Your task to perform on an android device: change the clock style Image 0: 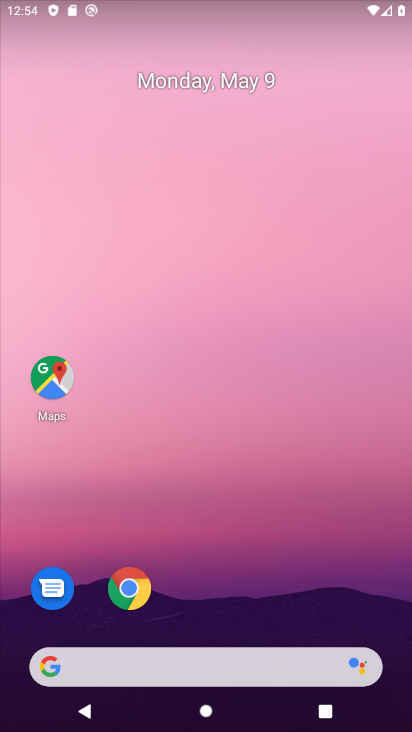
Step 0: drag from (197, 249) to (193, 161)
Your task to perform on an android device: change the clock style Image 1: 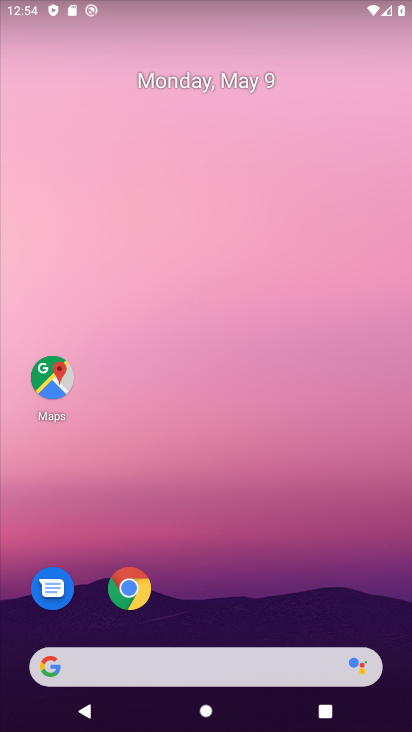
Step 1: drag from (212, 567) to (251, 56)
Your task to perform on an android device: change the clock style Image 2: 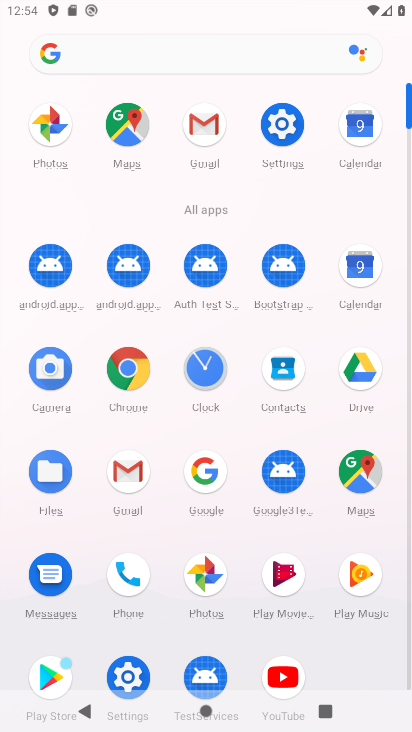
Step 2: click (201, 380)
Your task to perform on an android device: change the clock style Image 3: 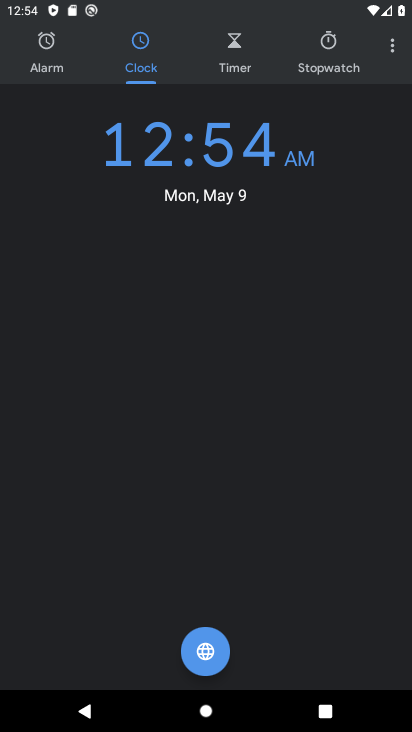
Step 3: click (394, 44)
Your task to perform on an android device: change the clock style Image 4: 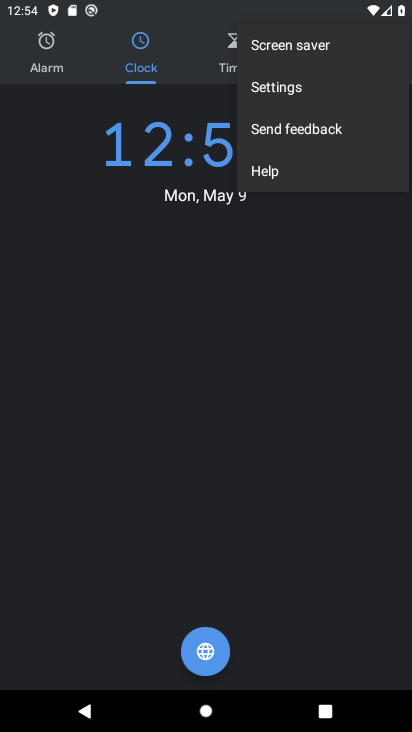
Step 4: click (275, 96)
Your task to perform on an android device: change the clock style Image 5: 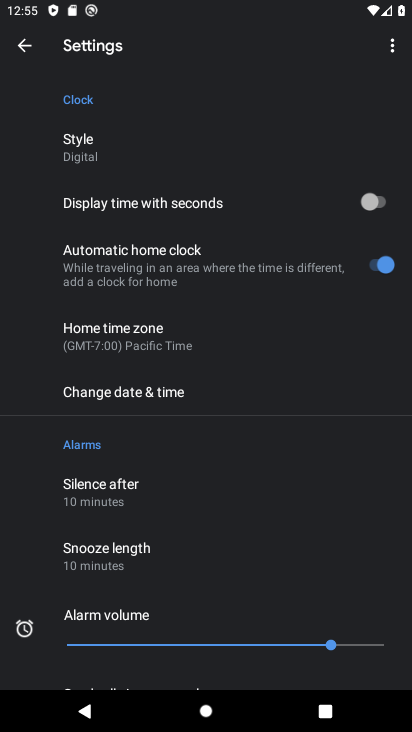
Step 5: click (124, 152)
Your task to perform on an android device: change the clock style Image 6: 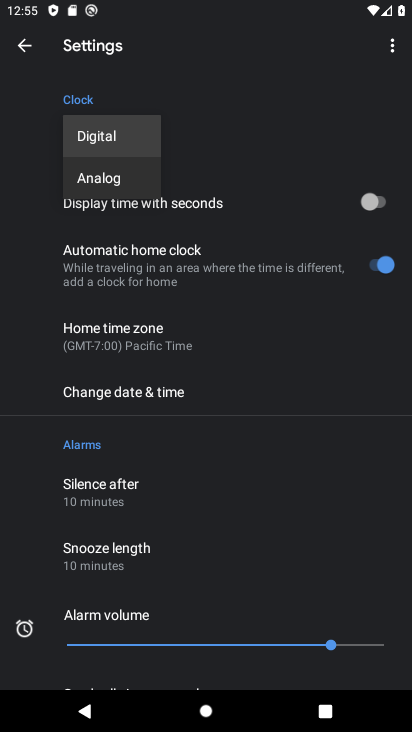
Step 6: click (126, 185)
Your task to perform on an android device: change the clock style Image 7: 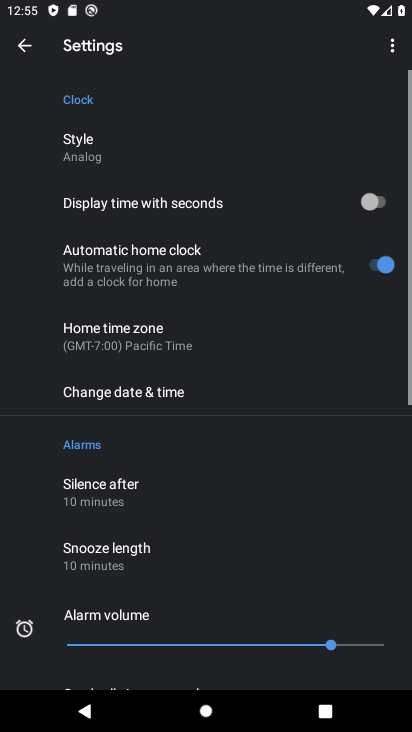
Step 7: task complete